Your task to perform on an android device: What time is it in Paris? Image 0: 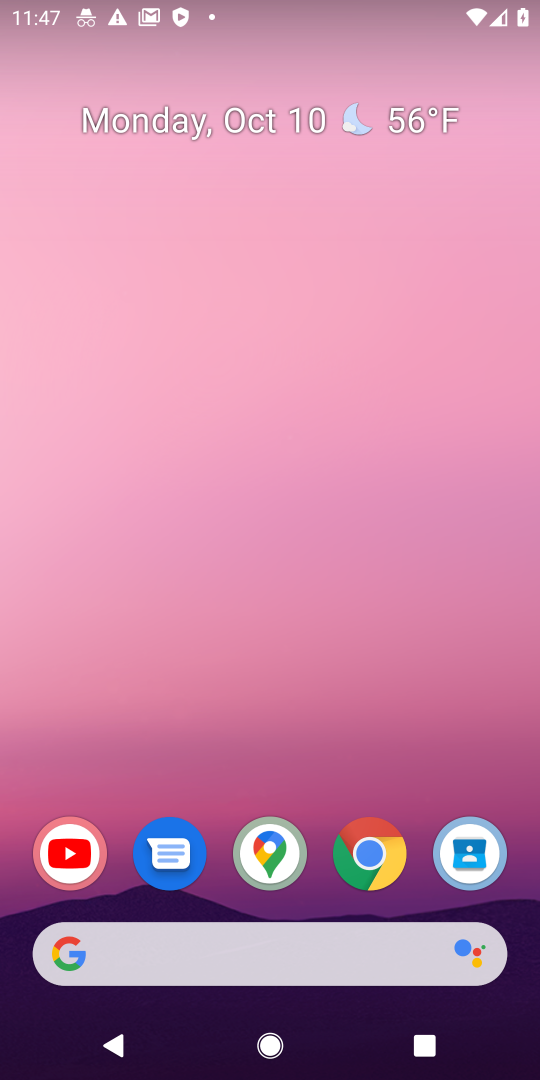
Step 0: click (302, 952)
Your task to perform on an android device: What time is it in Paris? Image 1: 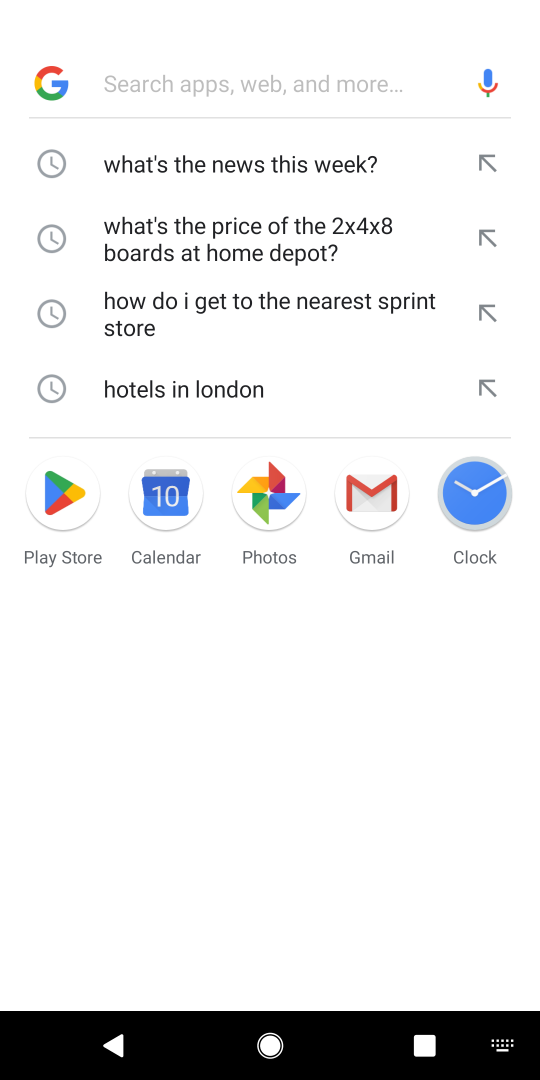
Step 1: type "What time is it in Paris"
Your task to perform on an android device: What time is it in Paris? Image 2: 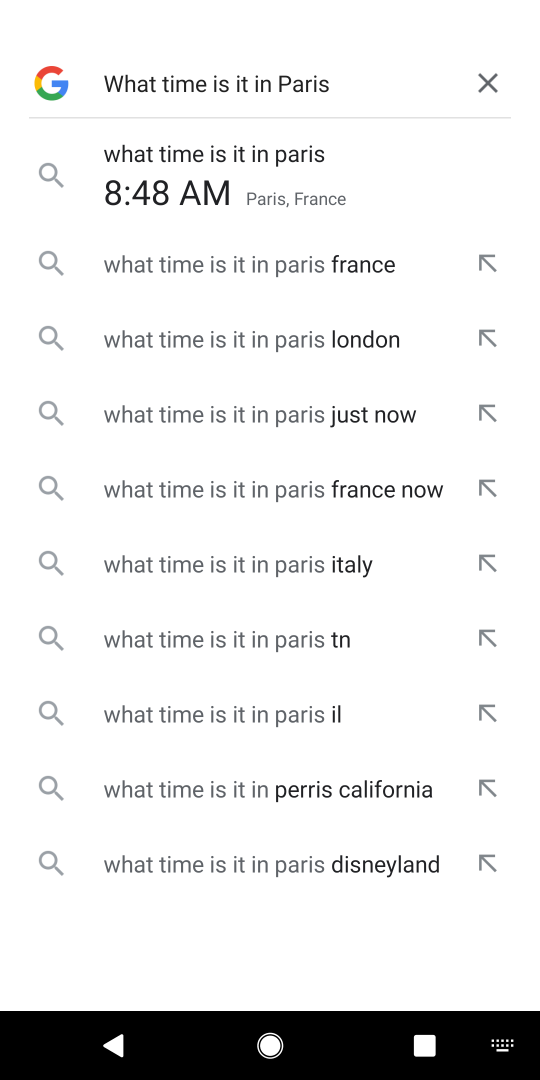
Step 2: press enter
Your task to perform on an android device: What time is it in Paris? Image 3: 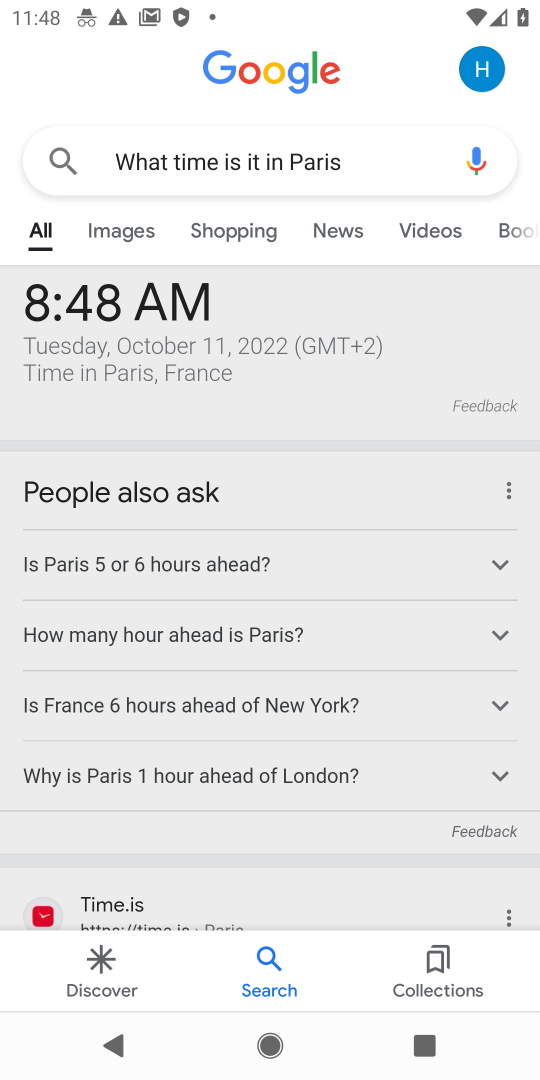
Step 3: task complete